Your task to perform on an android device: turn off smart reply in the gmail app Image 0: 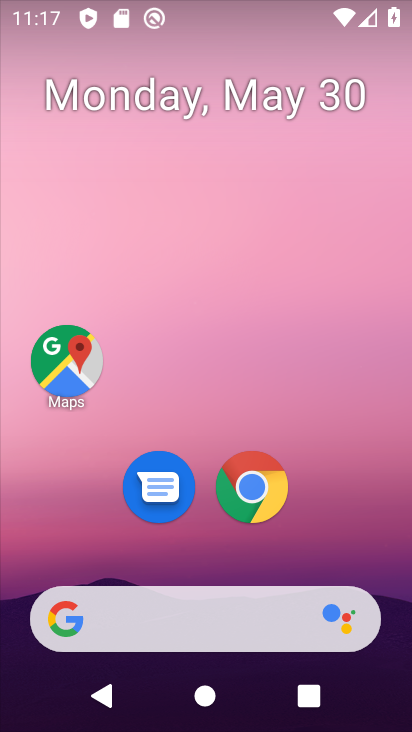
Step 0: drag from (325, 538) to (230, 140)
Your task to perform on an android device: turn off smart reply in the gmail app Image 1: 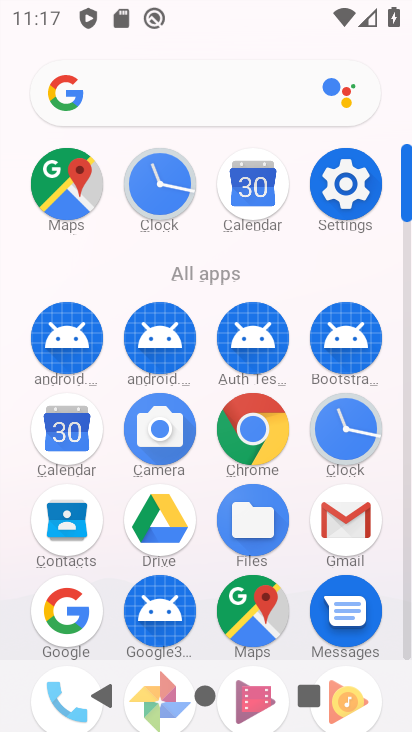
Step 1: click (339, 515)
Your task to perform on an android device: turn off smart reply in the gmail app Image 2: 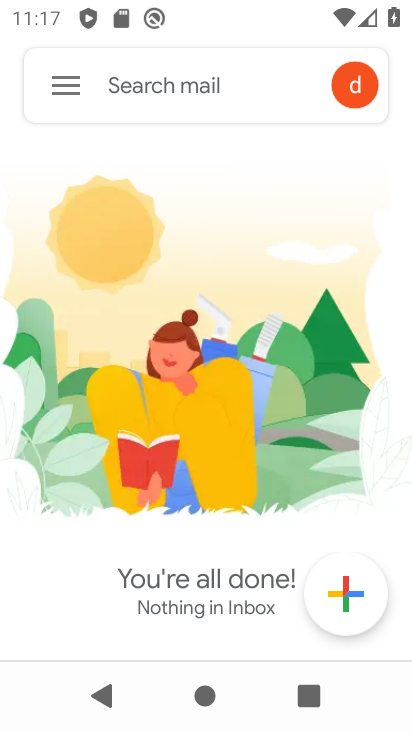
Step 2: click (70, 87)
Your task to perform on an android device: turn off smart reply in the gmail app Image 3: 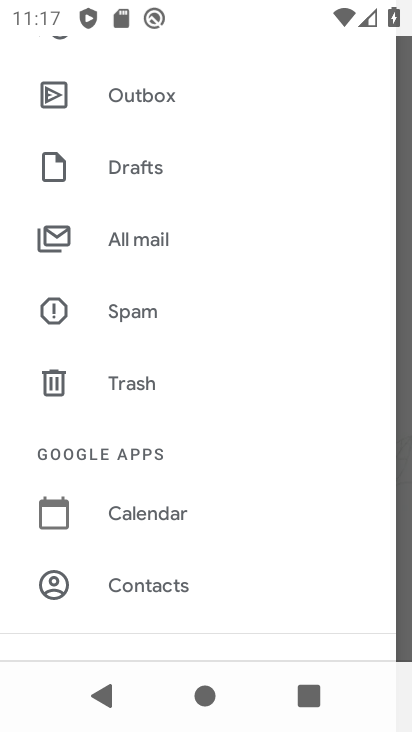
Step 3: drag from (245, 556) to (217, 262)
Your task to perform on an android device: turn off smart reply in the gmail app Image 4: 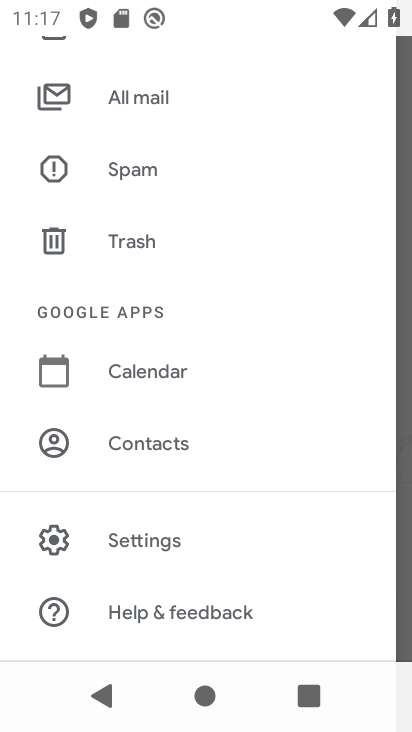
Step 4: click (142, 532)
Your task to perform on an android device: turn off smart reply in the gmail app Image 5: 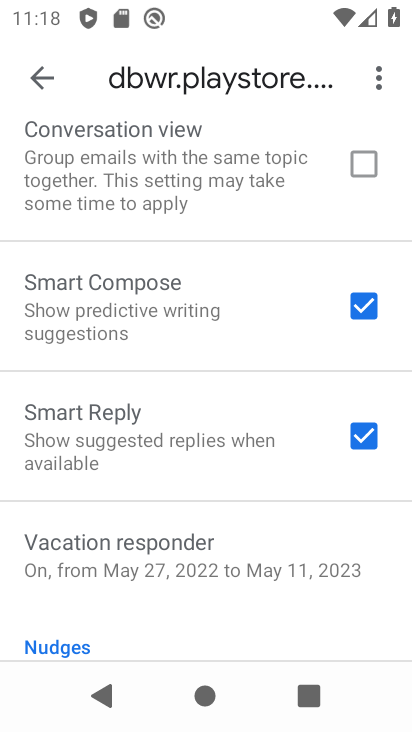
Step 5: drag from (175, 493) to (153, 244)
Your task to perform on an android device: turn off smart reply in the gmail app Image 6: 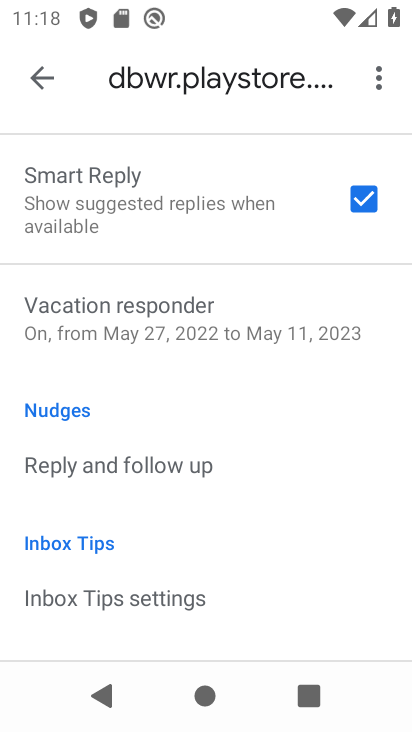
Step 6: click (363, 191)
Your task to perform on an android device: turn off smart reply in the gmail app Image 7: 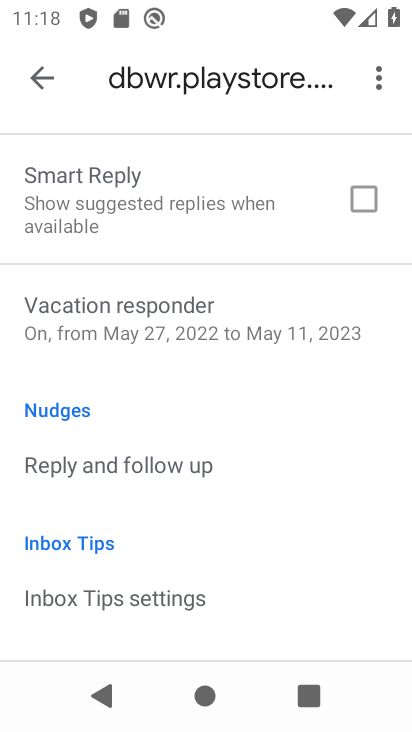
Step 7: task complete